Your task to perform on an android device: move an email to a new category in the gmail app Image 0: 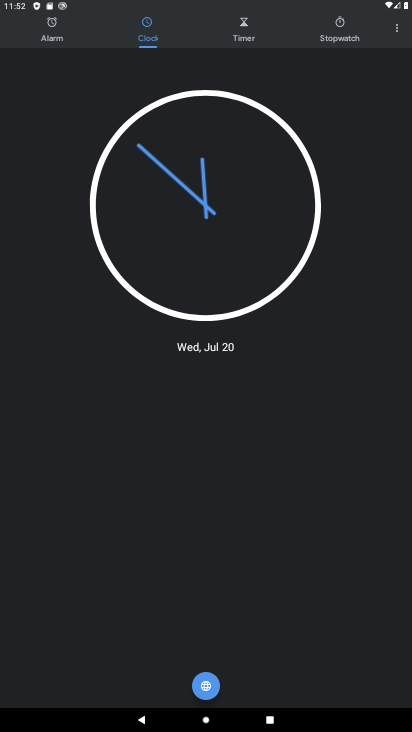
Step 0: press home button
Your task to perform on an android device: move an email to a new category in the gmail app Image 1: 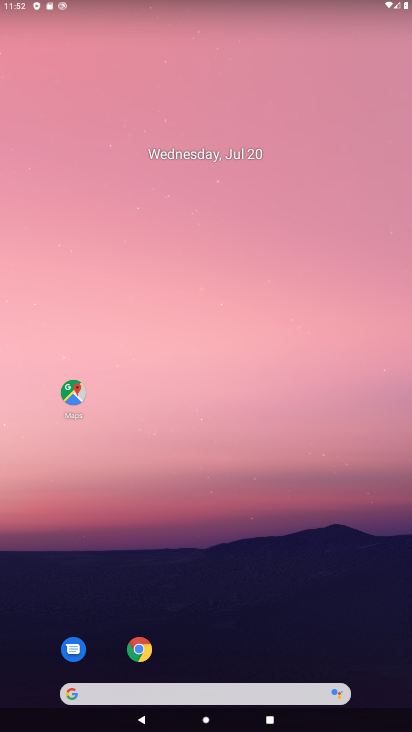
Step 1: drag from (213, 663) to (193, 406)
Your task to perform on an android device: move an email to a new category in the gmail app Image 2: 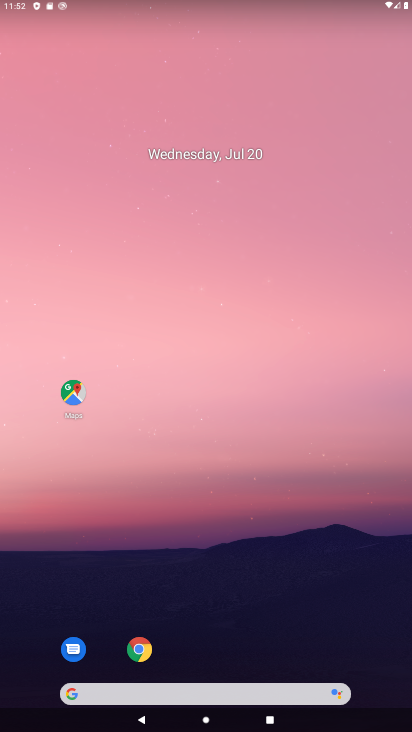
Step 2: drag from (312, 587) to (250, 61)
Your task to perform on an android device: move an email to a new category in the gmail app Image 3: 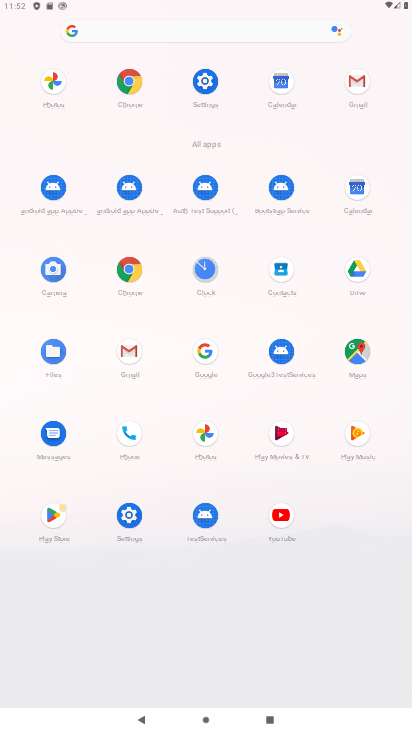
Step 3: click (126, 353)
Your task to perform on an android device: move an email to a new category in the gmail app Image 4: 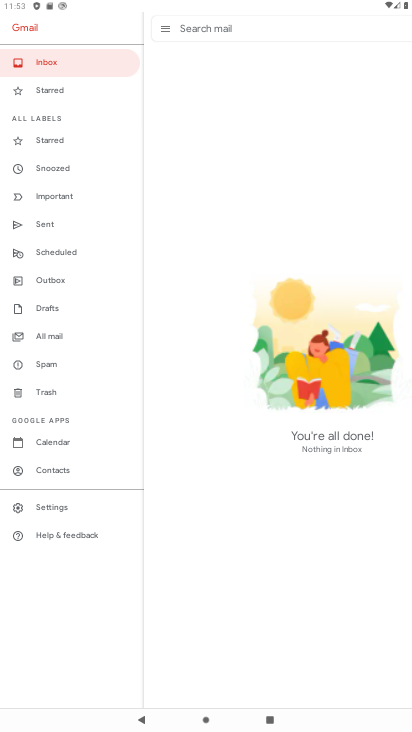
Step 4: task complete